Your task to perform on an android device: Open Google Image 0: 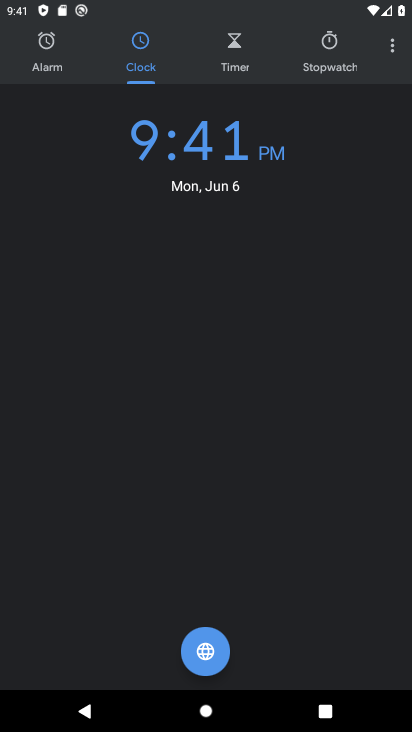
Step 0: press home button
Your task to perform on an android device: Open Google Image 1: 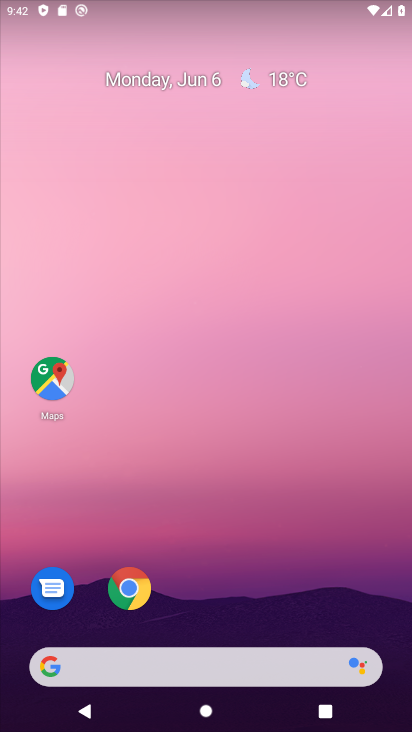
Step 1: drag from (270, 592) to (289, 133)
Your task to perform on an android device: Open Google Image 2: 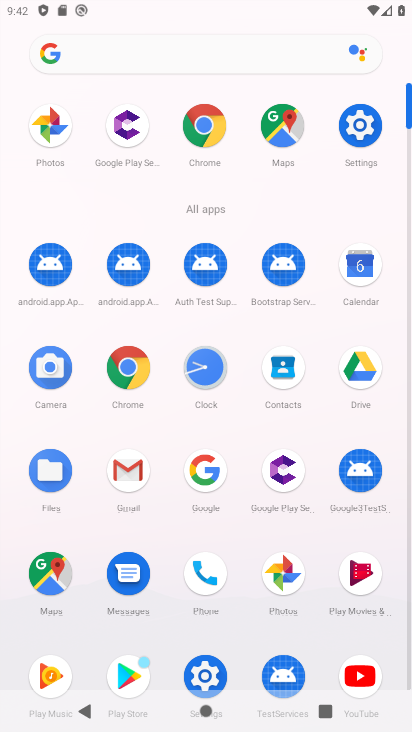
Step 2: click (205, 461)
Your task to perform on an android device: Open Google Image 3: 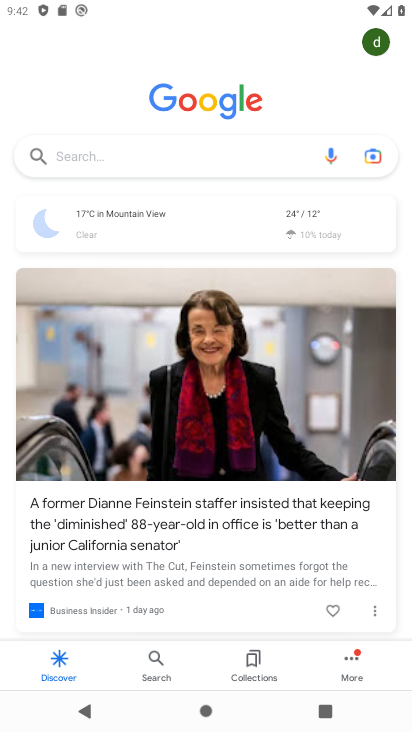
Step 3: task complete